Your task to perform on an android device: turn pop-ups on in chrome Image 0: 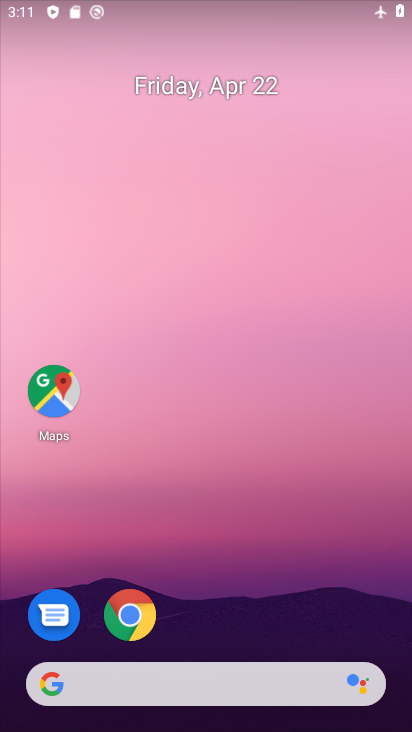
Step 0: click (136, 620)
Your task to perform on an android device: turn pop-ups on in chrome Image 1: 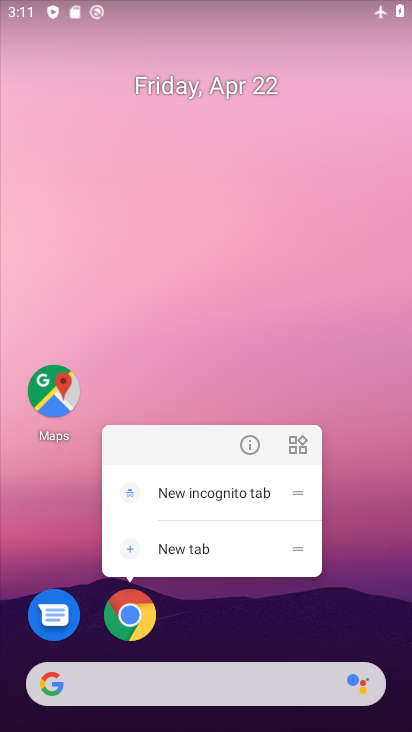
Step 1: click (136, 620)
Your task to perform on an android device: turn pop-ups on in chrome Image 2: 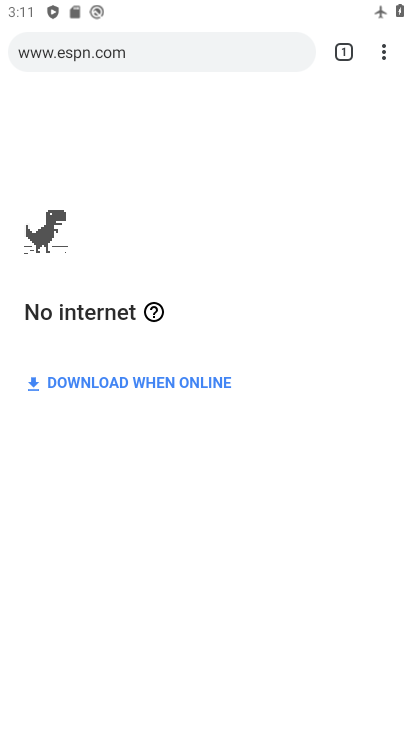
Step 2: click (380, 54)
Your task to perform on an android device: turn pop-ups on in chrome Image 3: 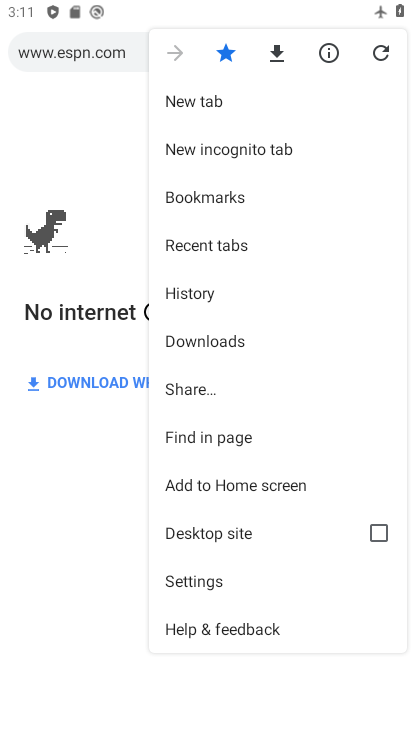
Step 3: click (202, 578)
Your task to perform on an android device: turn pop-ups on in chrome Image 4: 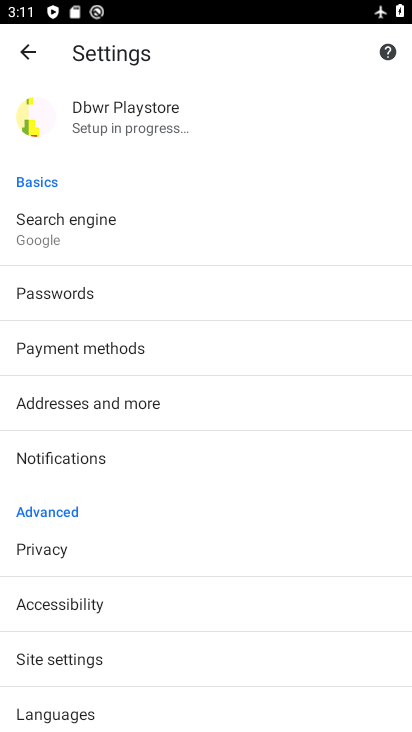
Step 4: drag from (82, 705) to (125, 408)
Your task to perform on an android device: turn pop-ups on in chrome Image 5: 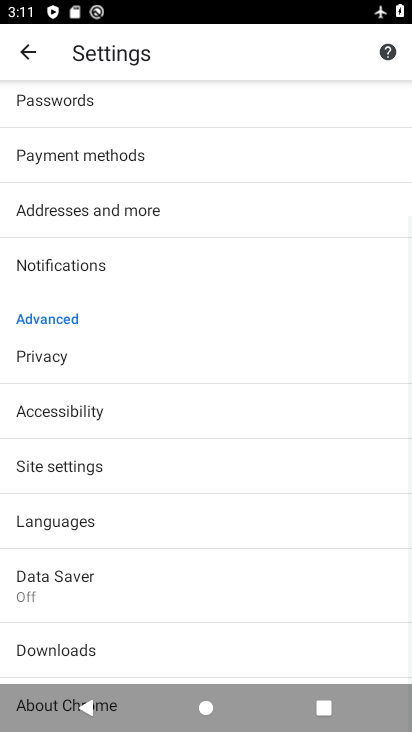
Step 5: click (46, 473)
Your task to perform on an android device: turn pop-ups on in chrome Image 6: 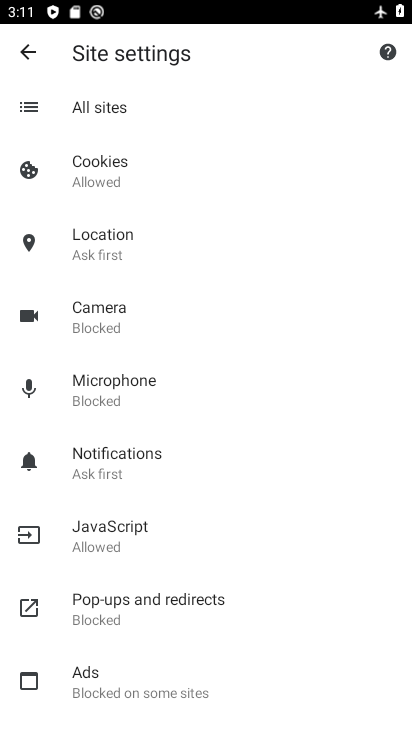
Step 6: drag from (177, 705) to (243, 359)
Your task to perform on an android device: turn pop-ups on in chrome Image 7: 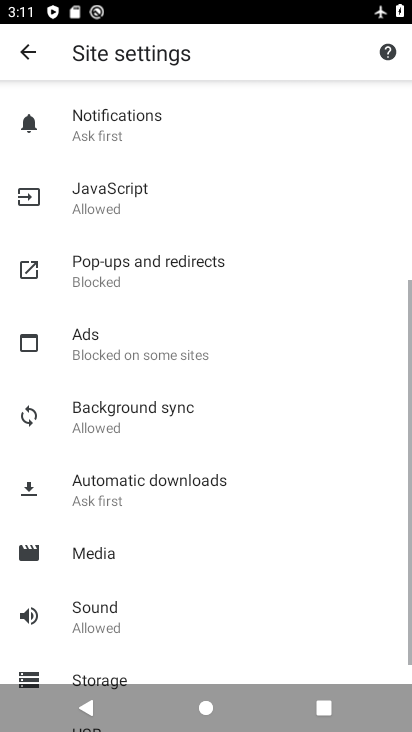
Step 7: drag from (201, 668) to (235, 307)
Your task to perform on an android device: turn pop-ups on in chrome Image 8: 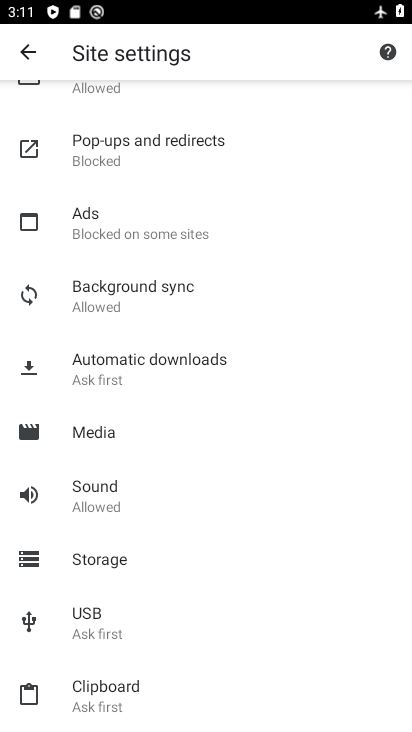
Step 8: click (98, 150)
Your task to perform on an android device: turn pop-ups on in chrome Image 9: 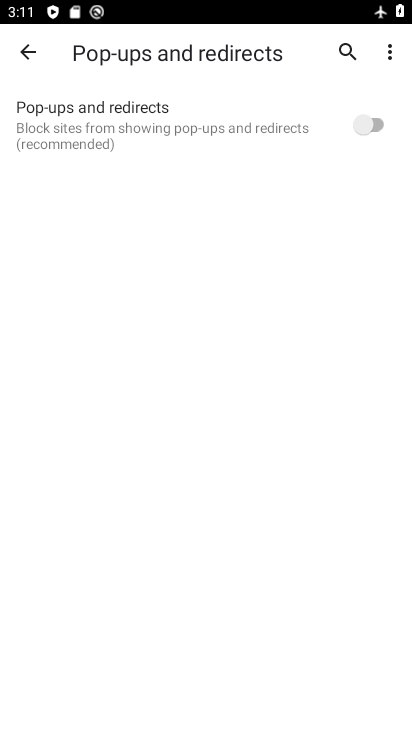
Step 9: click (368, 118)
Your task to perform on an android device: turn pop-ups on in chrome Image 10: 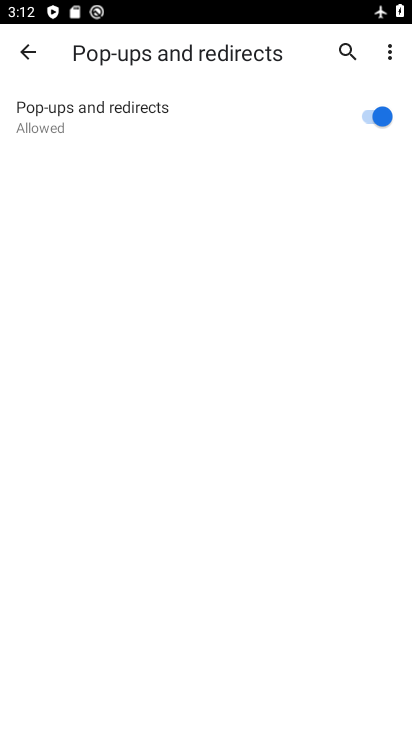
Step 10: task complete